Your task to perform on an android device: empty trash in google photos Image 0: 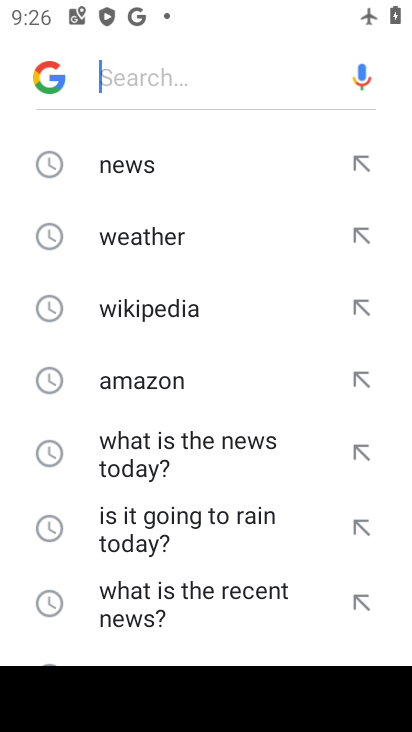
Step 0: press home button
Your task to perform on an android device: empty trash in google photos Image 1: 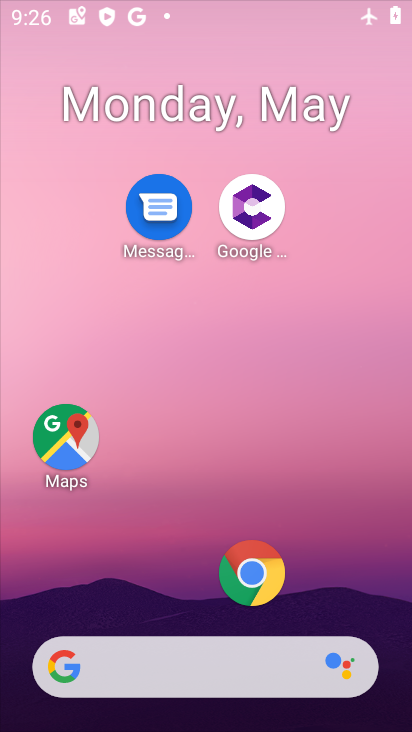
Step 1: drag from (190, 518) to (411, 17)
Your task to perform on an android device: empty trash in google photos Image 2: 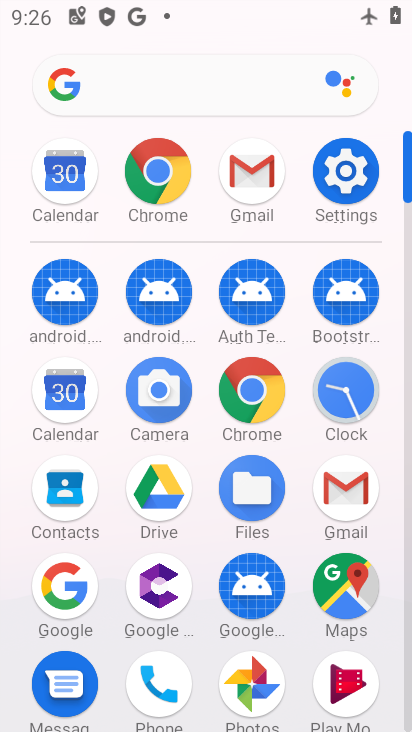
Step 2: drag from (173, 516) to (195, 134)
Your task to perform on an android device: empty trash in google photos Image 3: 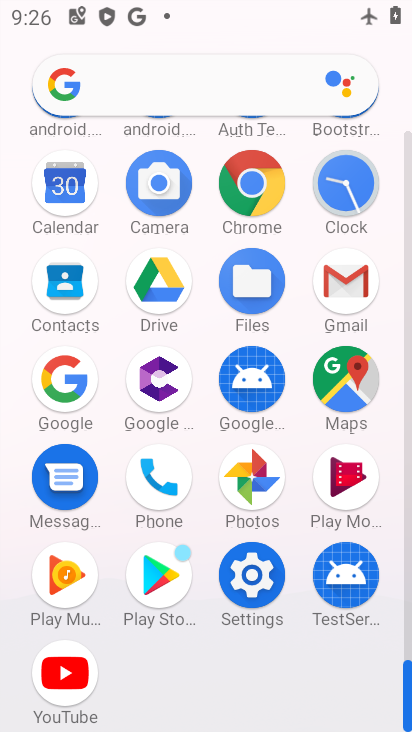
Step 3: click (257, 476)
Your task to perform on an android device: empty trash in google photos Image 4: 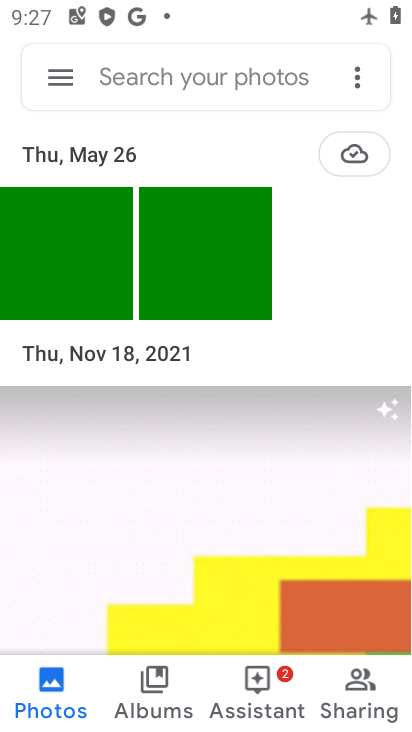
Step 4: click (63, 84)
Your task to perform on an android device: empty trash in google photos Image 5: 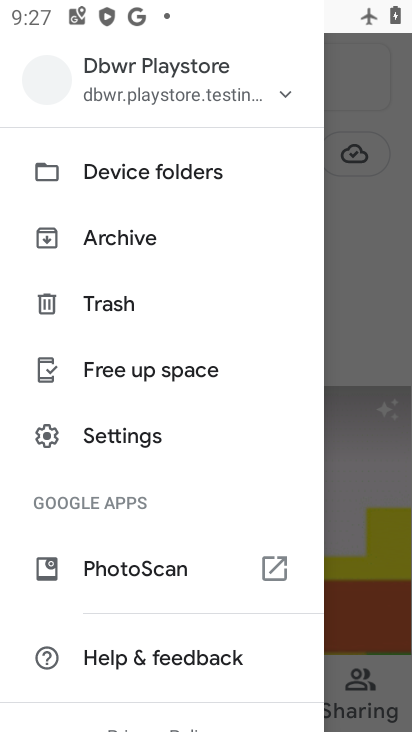
Step 5: click (133, 291)
Your task to perform on an android device: empty trash in google photos Image 6: 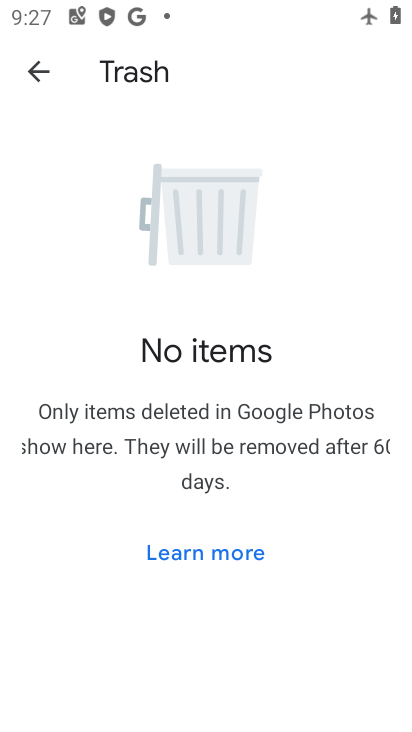
Step 6: task complete